Your task to perform on an android device: open app "YouTube Kids" (install if not already installed) Image 0: 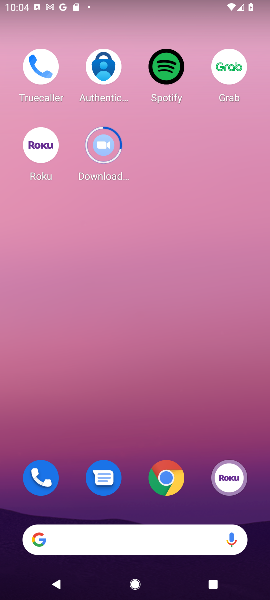
Step 0: drag from (135, 516) to (167, 162)
Your task to perform on an android device: open app "YouTube Kids" (install if not already installed) Image 1: 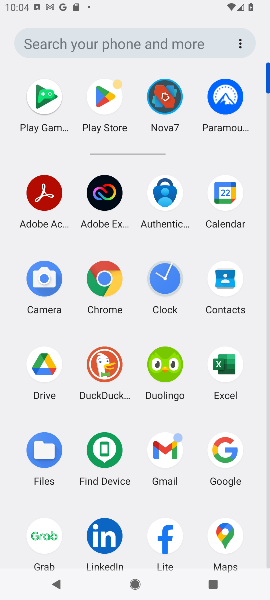
Step 1: click (112, 122)
Your task to perform on an android device: open app "YouTube Kids" (install if not already installed) Image 2: 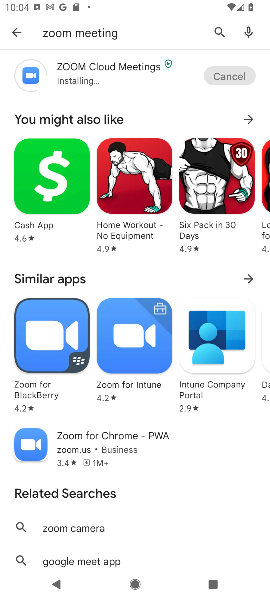
Step 2: click (220, 39)
Your task to perform on an android device: open app "YouTube Kids" (install if not already installed) Image 3: 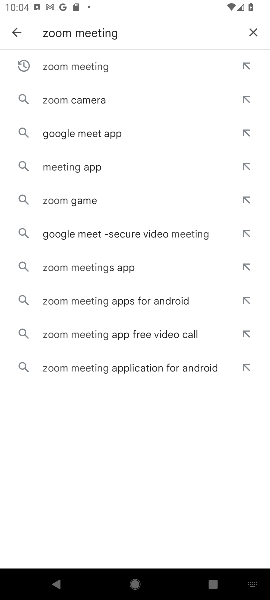
Step 3: click (249, 39)
Your task to perform on an android device: open app "YouTube Kids" (install if not already installed) Image 4: 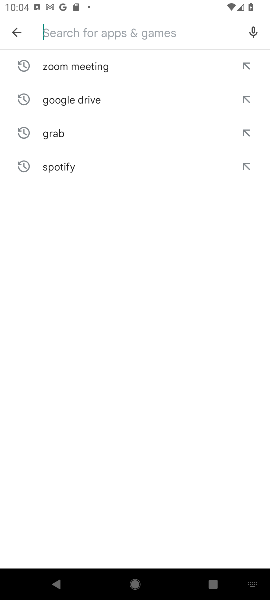
Step 4: type "youtbe kid"
Your task to perform on an android device: open app "YouTube Kids" (install if not already installed) Image 5: 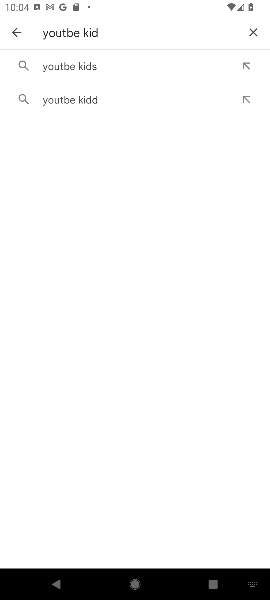
Step 5: click (89, 55)
Your task to perform on an android device: open app "YouTube Kids" (install if not already installed) Image 6: 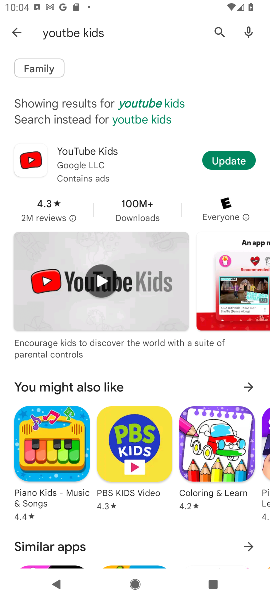
Step 6: click (214, 155)
Your task to perform on an android device: open app "YouTube Kids" (install if not already installed) Image 7: 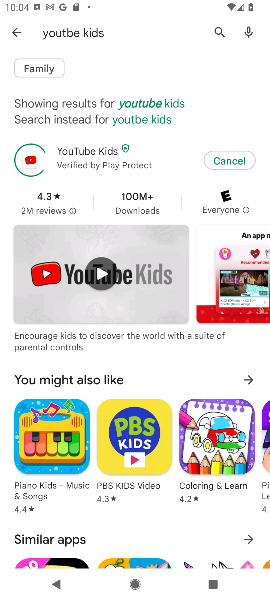
Step 7: task complete